Your task to perform on an android device: check out phone information Image 0: 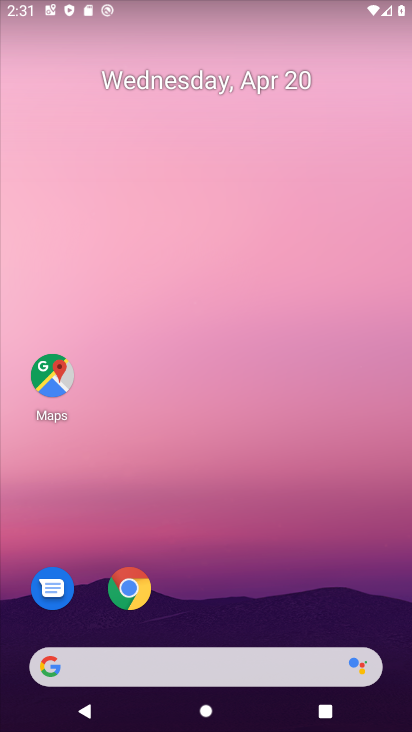
Step 0: drag from (344, 592) to (326, 128)
Your task to perform on an android device: check out phone information Image 1: 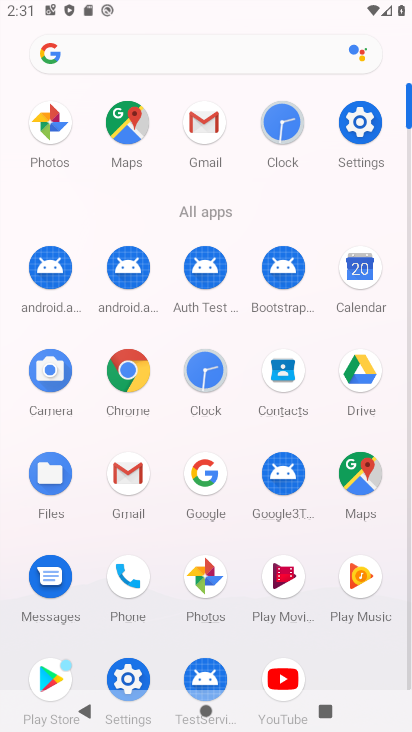
Step 1: click (135, 576)
Your task to perform on an android device: check out phone information Image 2: 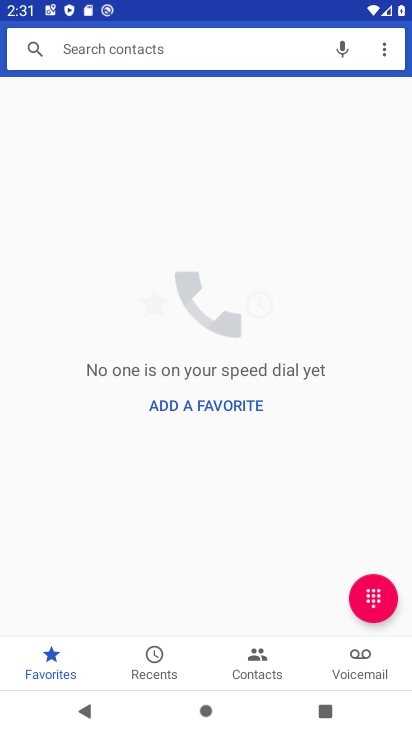
Step 2: click (150, 667)
Your task to perform on an android device: check out phone information Image 3: 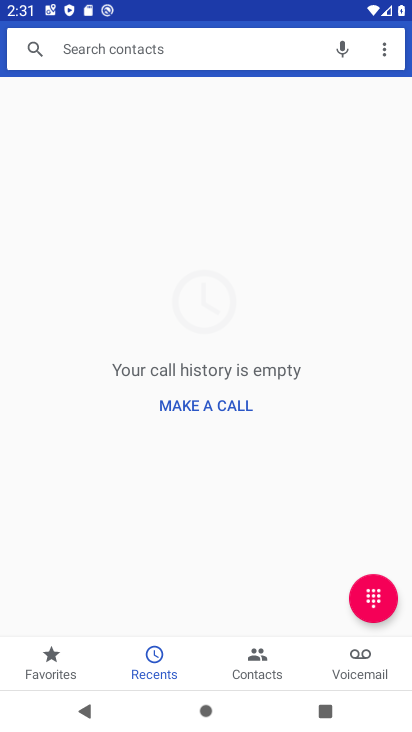
Step 3: task complete